Your task to perform on an android device: set the timer Image 0: 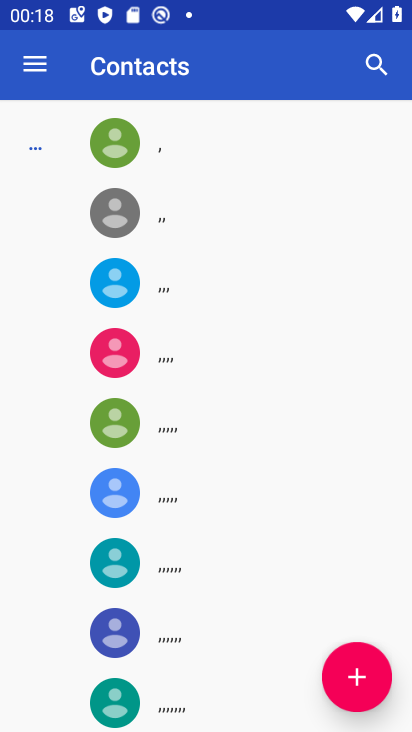
Step 0: press home button
Your task to perform on an android device: set the timer Image 1: 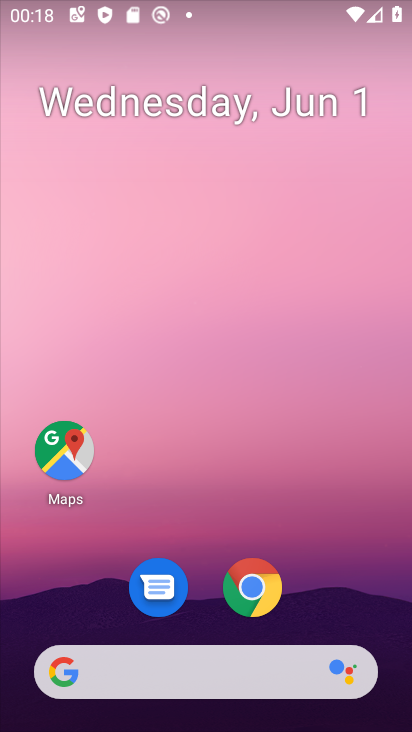
Step 1: drag from (359, 369) to (350, 1)
Your task to perform on an android device: set the timer Image 2: 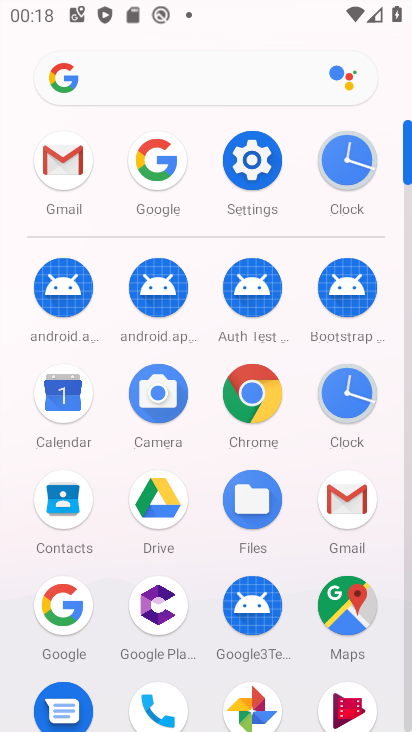
Step 2: click (358, 161)
Your task to perform on an android device: set the timer Image 3: 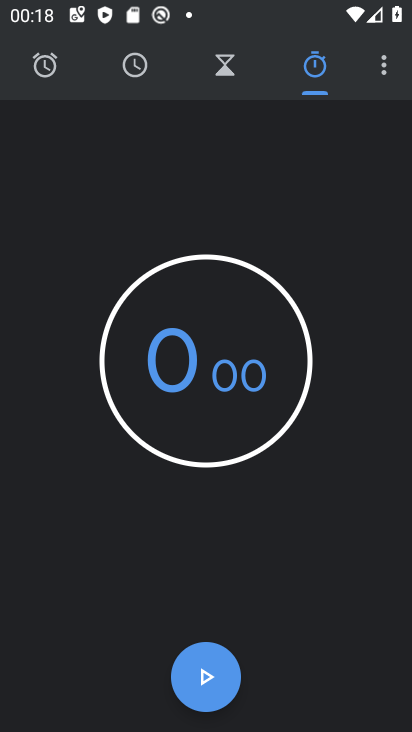
Step 3: click (240, 55)
Your task to perform on an android device: set the timer Image 4: 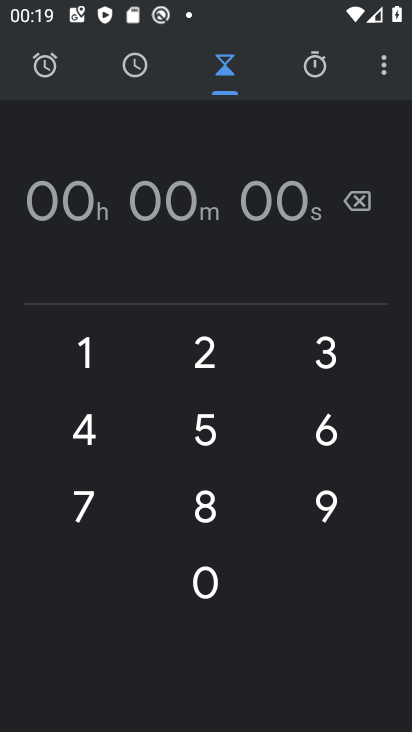
Step 4: click (205, 345)
Your task to perform on an android device: set the timer Image 5: 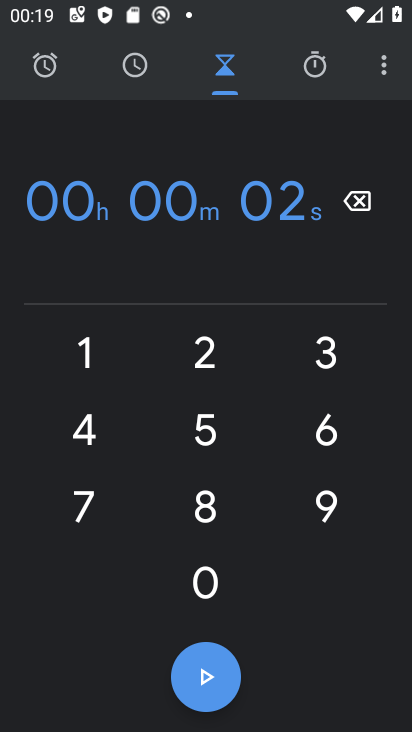
Step 5: click (205, 345)
Your task to perform on an android device: set the timer Image 6: 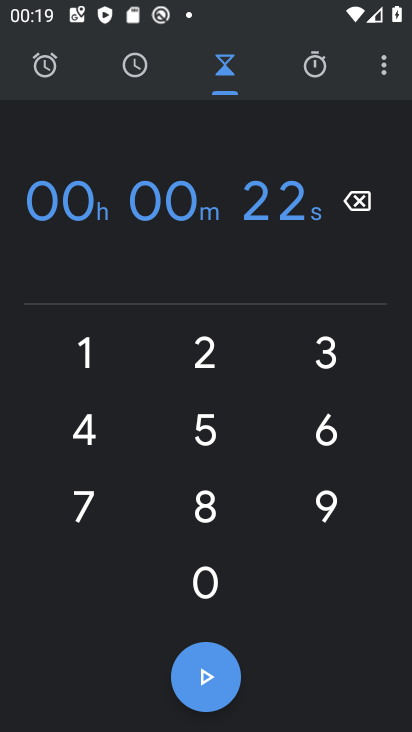
Step 6: click (199, 334)
Your task to perform on an android device: set the timer Image 7: 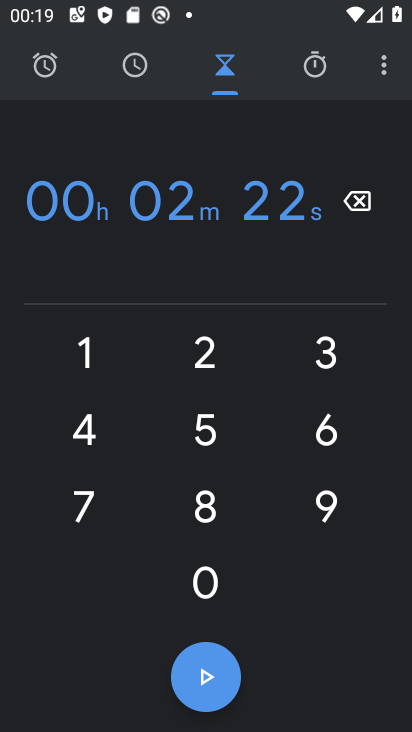
Step 7: click (199, 334)
Your task to perform on an android device: set the timer Image 8: 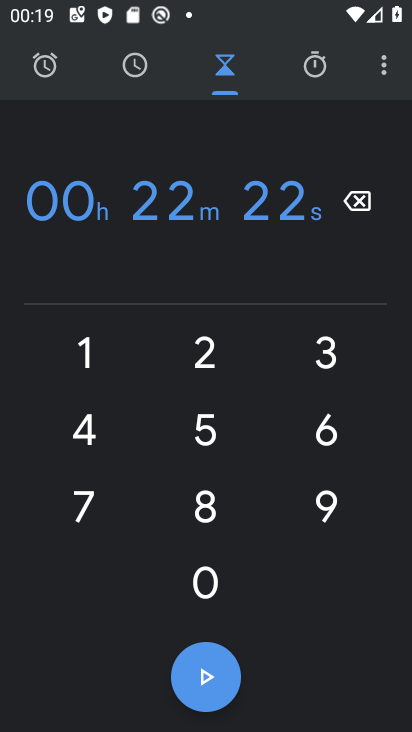
Step 8: click (199, 334)
Your task to perform on an android device: set the timer Image 9: 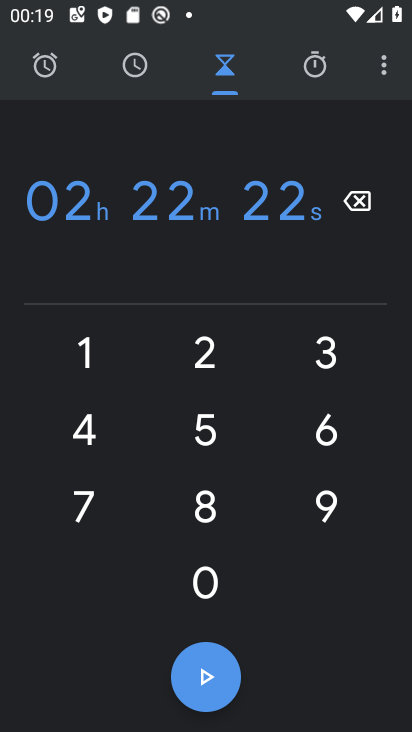
Step 9: click (199, 333)
Your task to perform on an android device: set the timer Image 10: 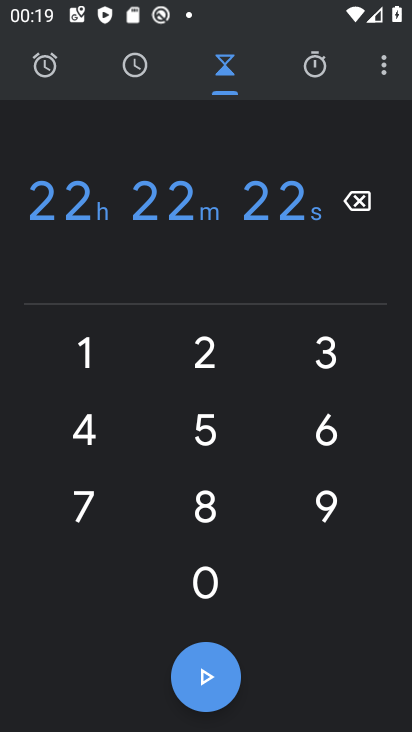
Step 10: click (212, 668)
Your task to perform on an android device: set the timer Image 11: 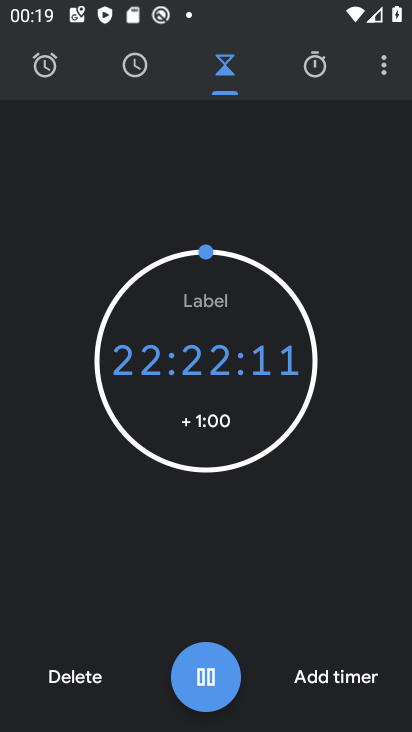
Step 11: task complete